Your task to perform on an android device: set default search engine in the chrome app Image 0: 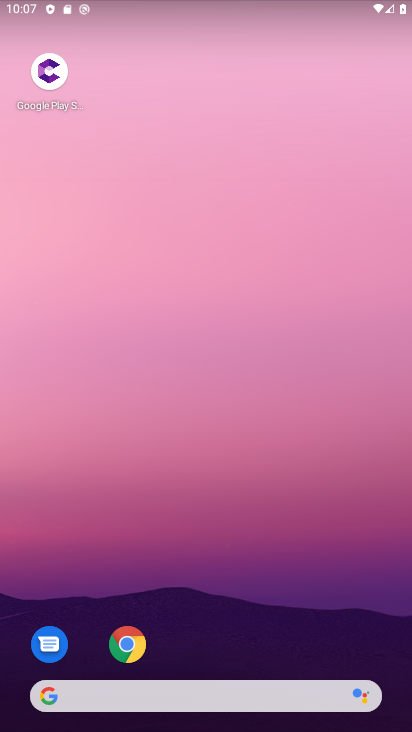
Step 0: click (138, 643)
Your task to perform on an android device: set default search engine in the chrome app Image 1: 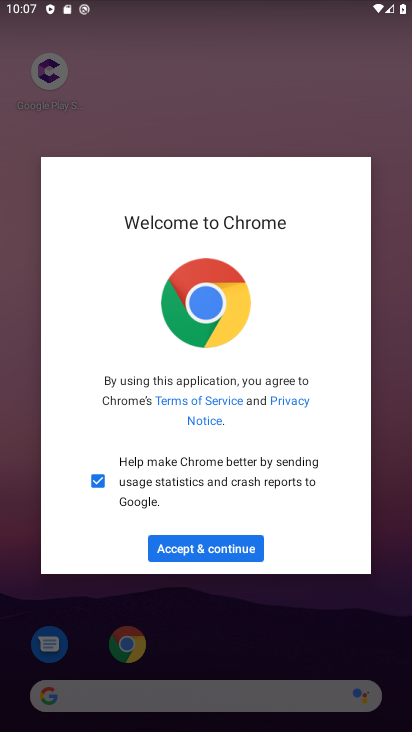
Step 1: click (220, 556)
Your task to perform on an android device: set default search engine in the chrome app Image 2: 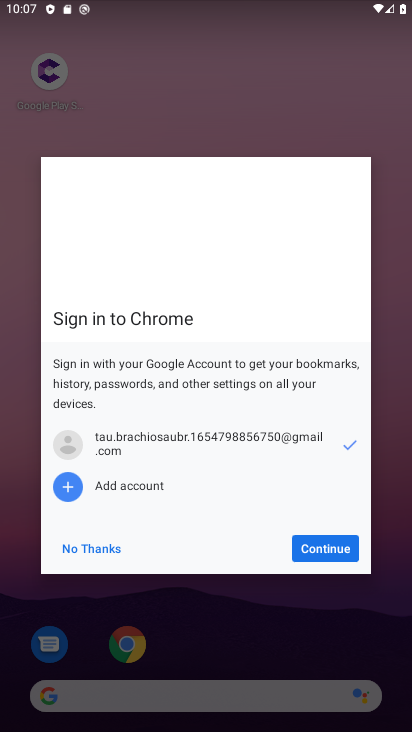
Step 2: click (324, 547)
Your task to perform on an android device: set default search engine in the chrome app Image 3: 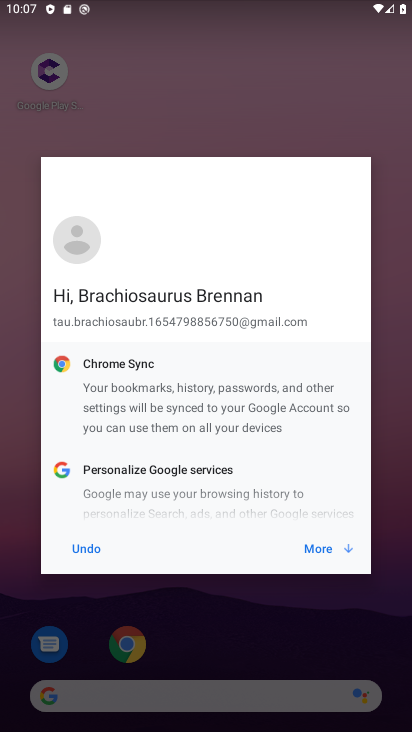
Step 3: click (324, 547)
Your task to perform on an android device: set default search engine in the chrome app Image 4: 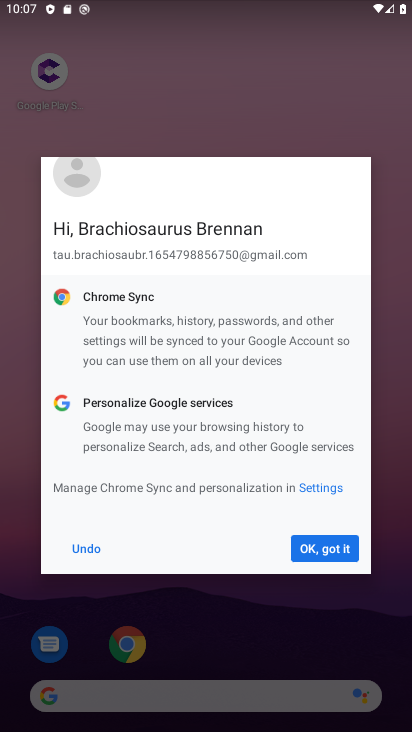
Step 4: click (324, 547)
Your task to perform on an android device: set default search engine in the chrome app Image 5: 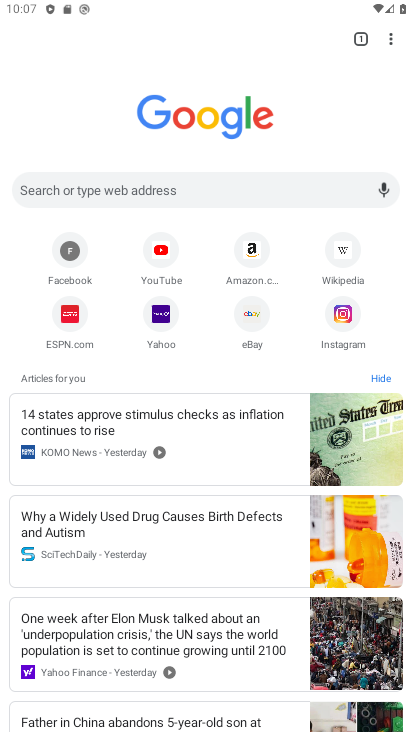
Step 5: click (392, 44)
Your task to perform on an android device: set default search engine in the chrome app Image 6: 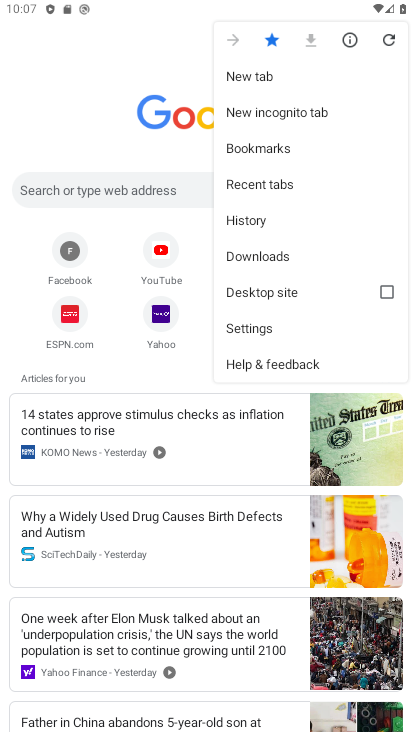
Step 6: click (274, 328)
Your task to perform on an android device: set default search engine in the chrome app Image 7: 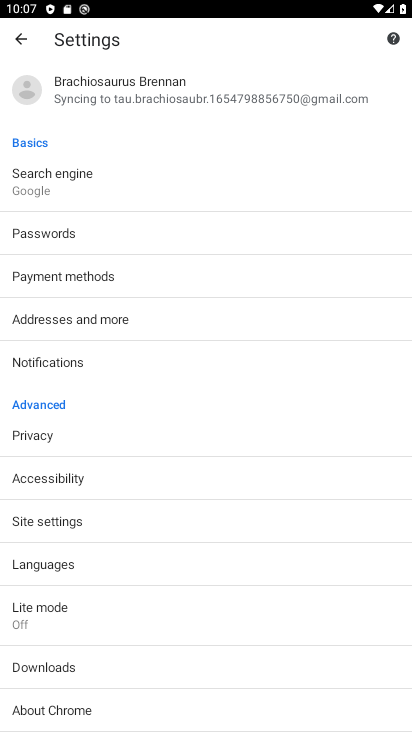
Step 7: click (159, 186)
Your task to perform on an android device: set default search engine in the chrome app Image 8: 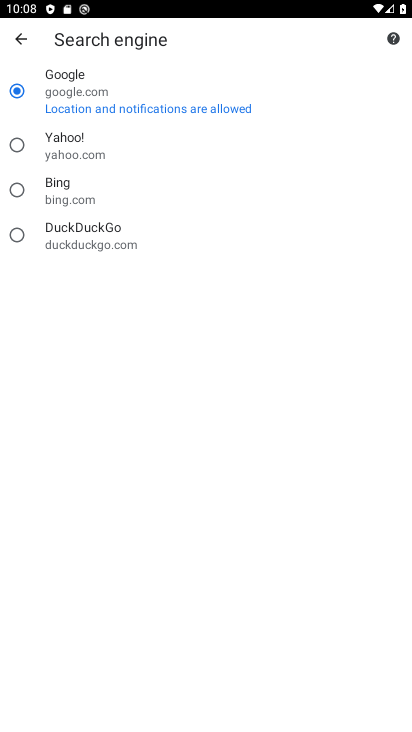
Step 8: click (115, 150)
Your task to perform on an android device: set default search engine in the chrome app Image 9: 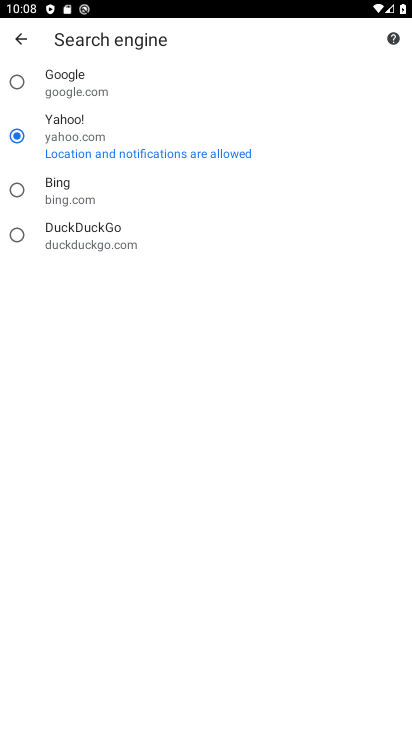
Step 9: task complete